Your task to perform on an android device: Open accessibility settings Image 0: 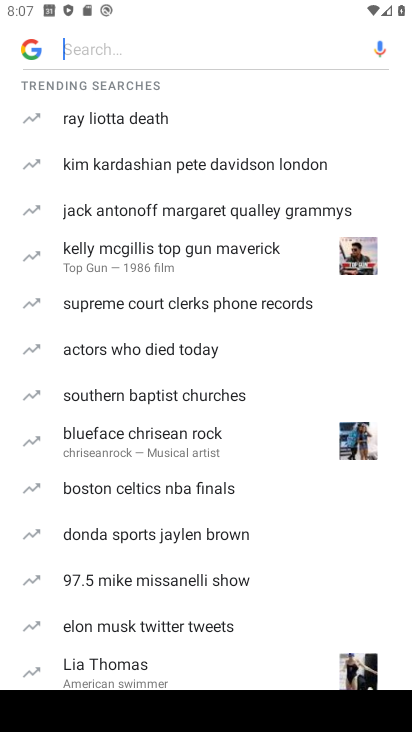
Step 0: press home button
Your task to perform on an android device: Open accessibility settings Image 1: 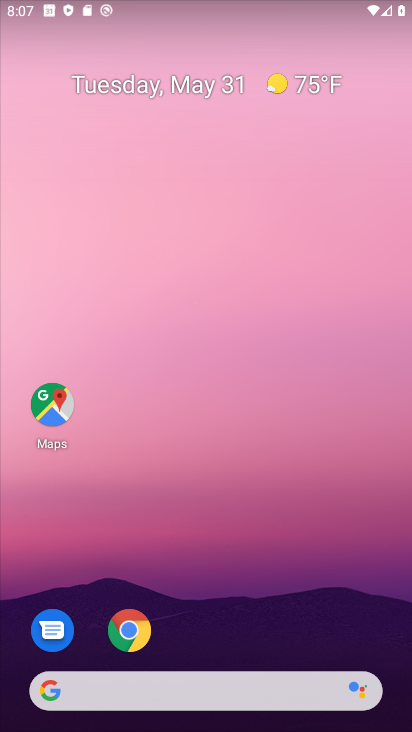
Step 1: drag from (256, 618) to (333, 134)
Your task to perform on an android device: Open accessibility settings Image 2: 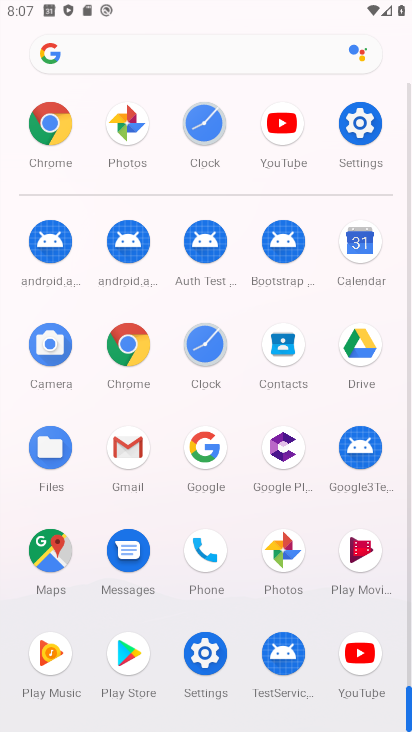
Step 2: click (350, 136)
Your task to perform on an android device: Open accessibility settings Image 3: 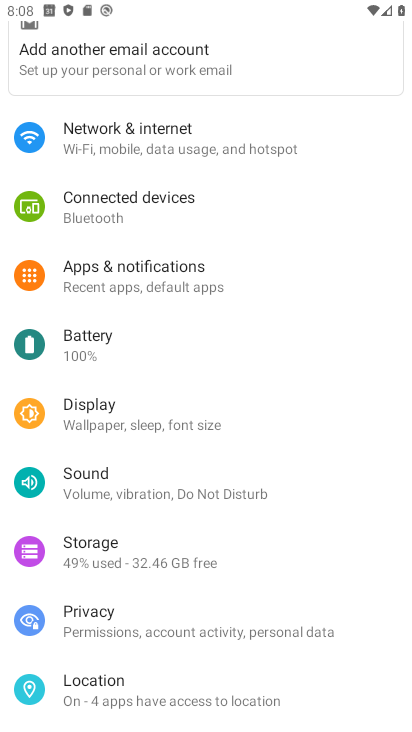
Step 3: drag from (212, 455) to (218, 203)
Your task to perform on an android device: Open accessibility settings Image 4: 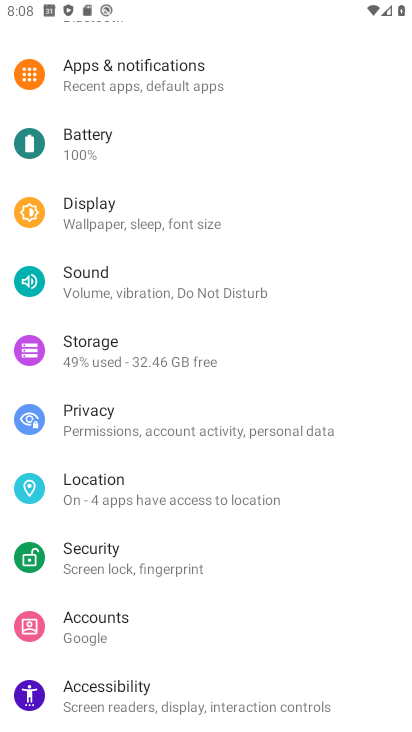
Step 4: drag from (162, 567) to (209, 330)
Your task to perform on an android device: Open accessibility settings Image 5: 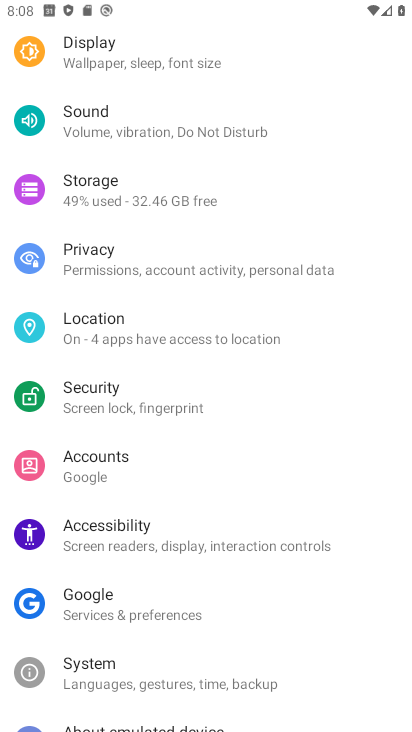
Step 5: click (158, 535)
Your task to perform on an android device: Open accessibility settings Image 6: 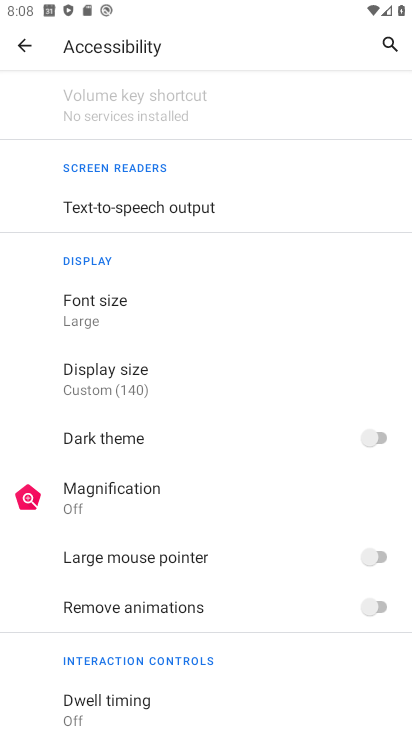
Step 6: task complete